Your task to perform on an android device: Open accessibility settings Image 0: 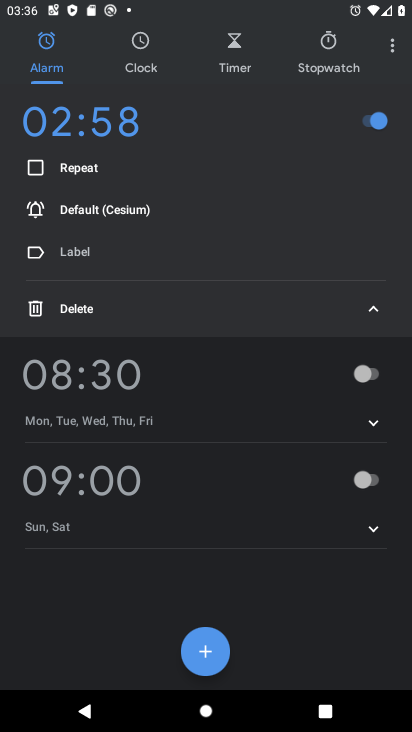
Step 0: press home button
Your task to perform on an android device: Open accessibility settings Image 1: 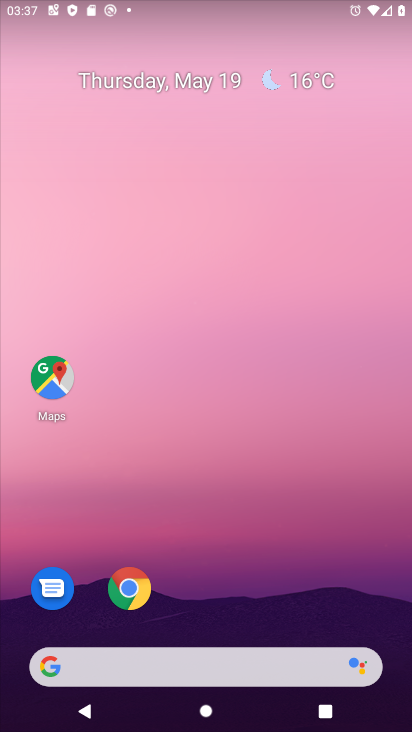
Step 1: drag from (245, 600) to (244, 222)
Your task to perform on an android device: Open accessibility settings Image 2: 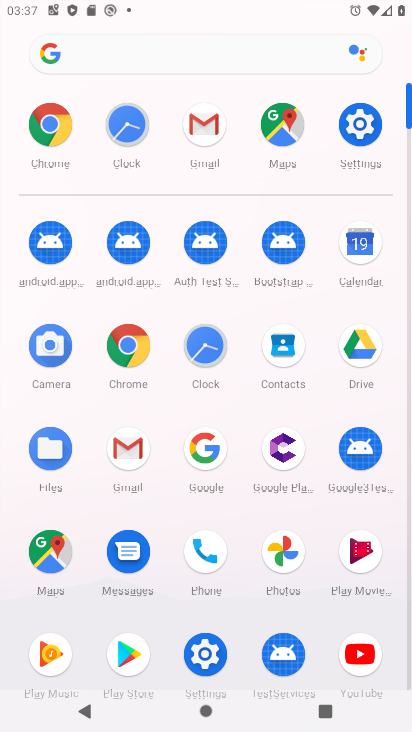
Step 2: click (375, 126)
Your task to perform on an android device: Open accessibility settings Image 3: 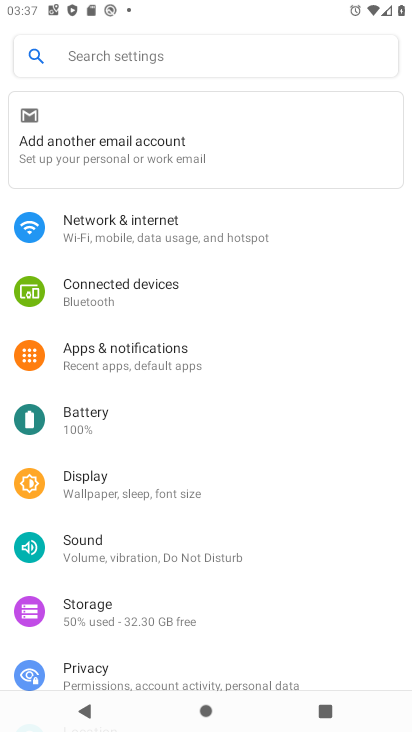
Step 3: drag from (159, 611) to (235, 128)
Your task to perform on an android device: Open accessibility settings Image 4: 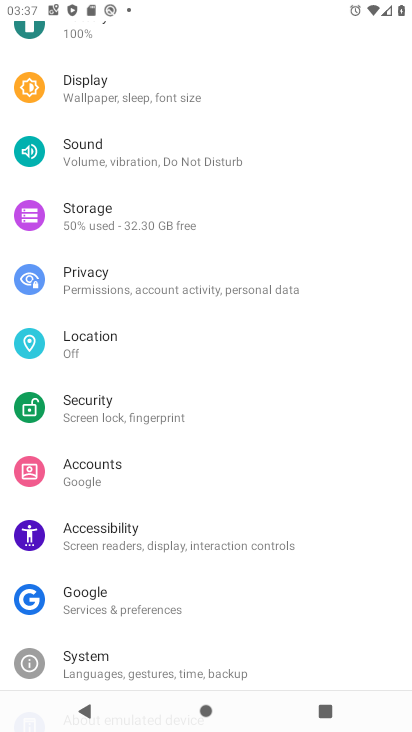
Step 4: click (159, 549)
Your task to perform on an android device: Open accessibility settings Image 5: 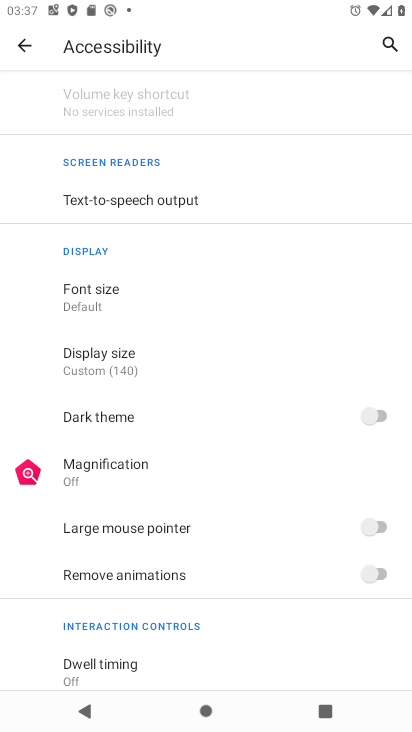
Step 5: task complete